Your task to perform on an android device: Go to Android settings Image 0: 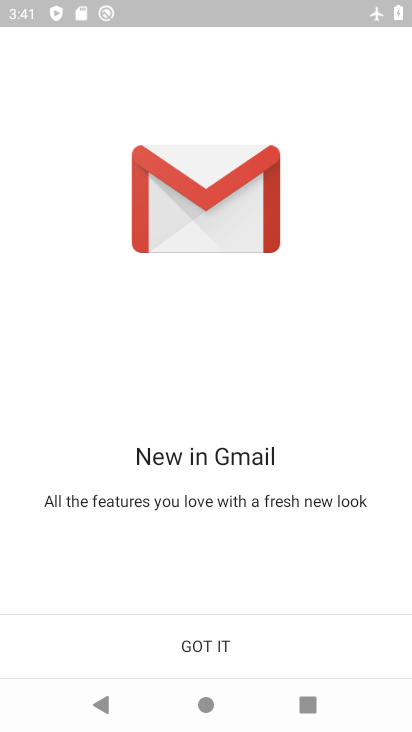
Step 0: press home button
Your task to perform on an android device: Go to Android settings Image 1: 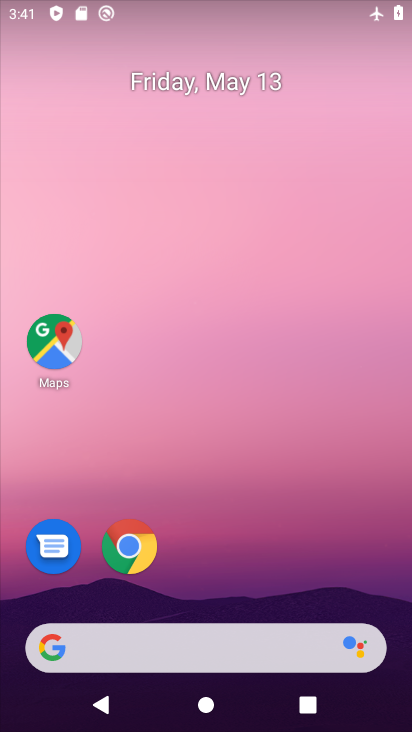
Step 1: drag from (227, 710) to (228, 207)
Your task to perform on an android device: Go to Android settings Image 2: 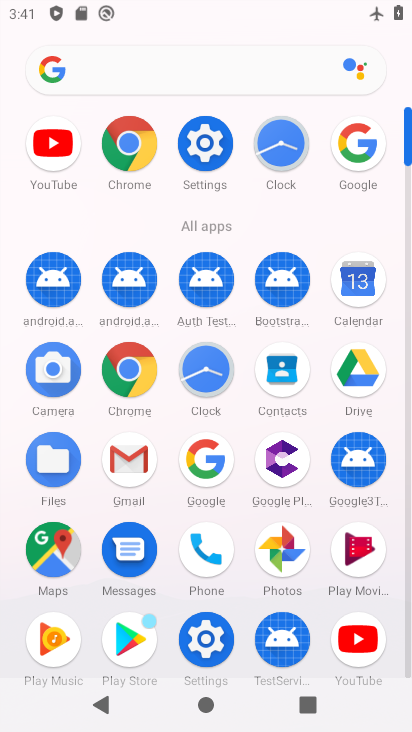
Step 2: click (212, 144)
Your task to perform on an android device: Go to Android settings Image 3: 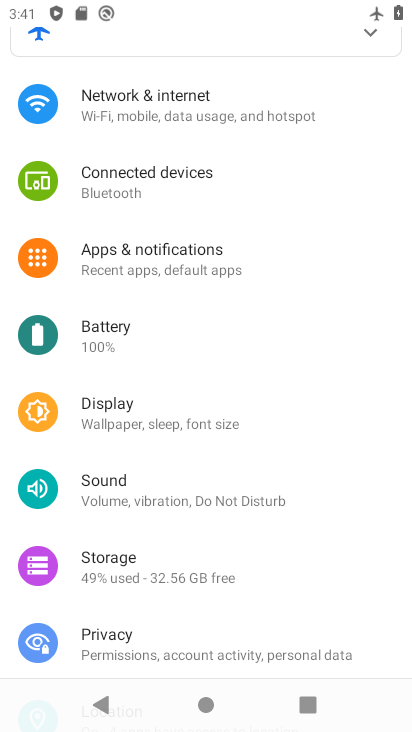
Step 3: task complete